Your task to perform on an android device: What is the capital of Brazil? Image 0: 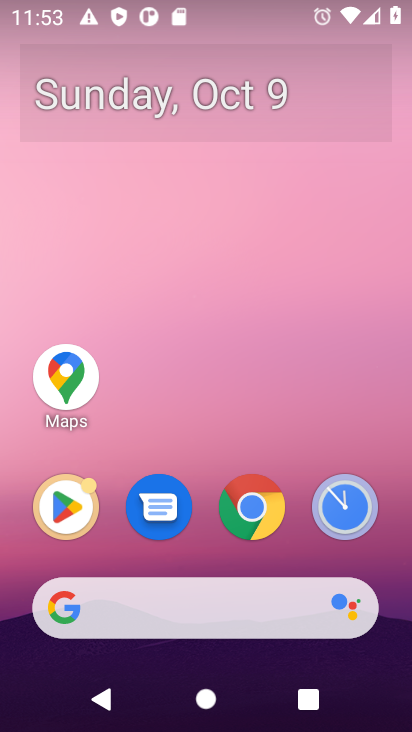
Step 0: press home button
Your task to perform on an android device: What is the capital of Brazil? Image 1: 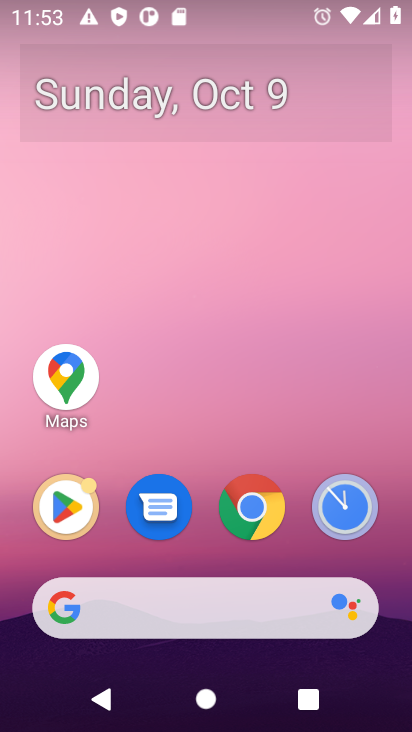
Step 1: click (243, 605)
Your task to perform on an android device: What is the capital of Brazil? Image 2: 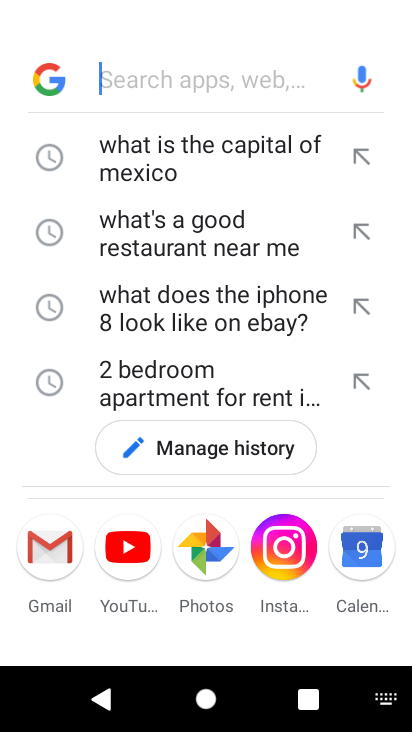
Step 2: type "What is the capital of Brazil"
Your task to perform on an android device: What is the capital of Brazil? Image 3: 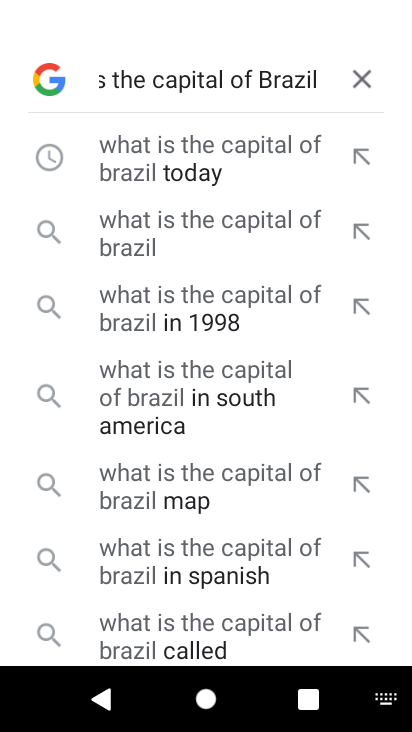
Step 3: press enter
Your task to perform on an android device: What is the capital of Brazil? Image 4: 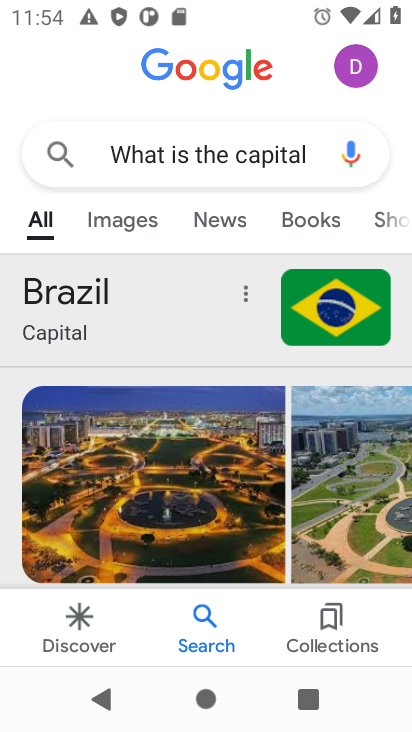
Step 4: task complete